Your task to perform on an android device: Open location settings Image 0: 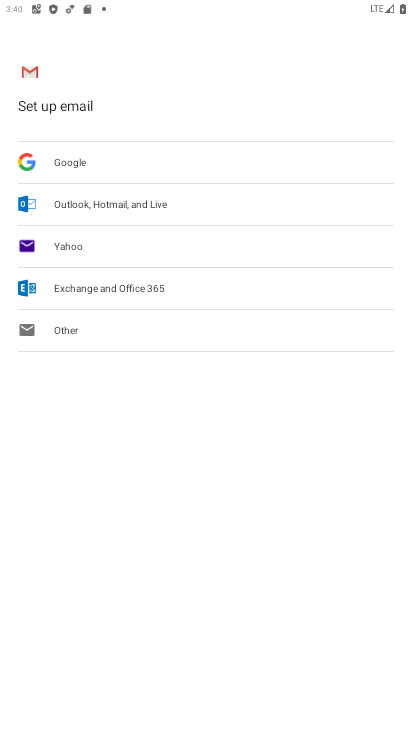
Step 0: press home button
Your task to perform on an android device: Open location settings Image 1: 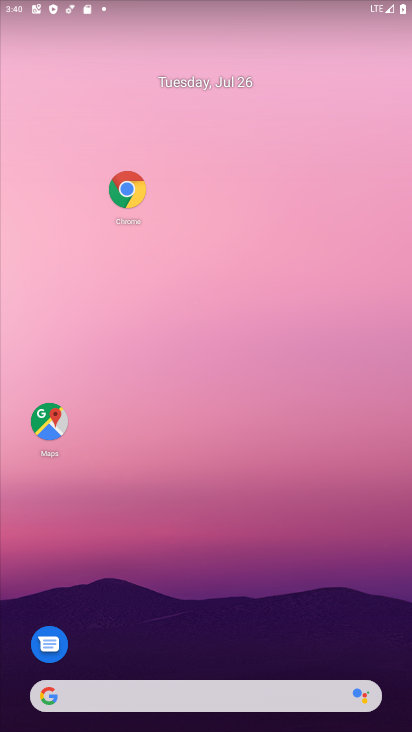
Step 1: drag from (211, 683) to (187, 251)
Your task to perform on an android device: Open location settings Image 2: 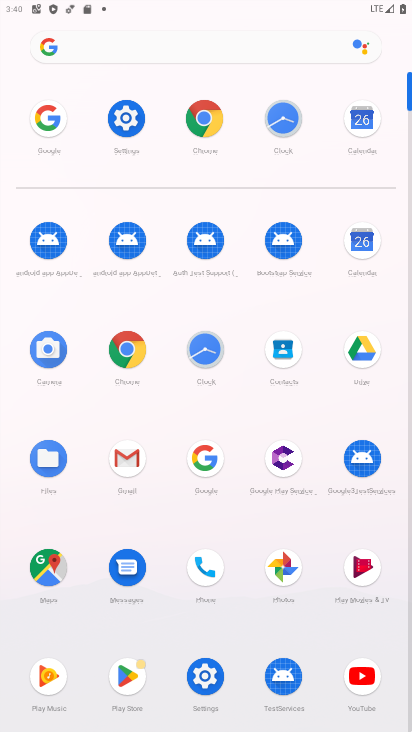
Step 2: click (199, 682)
Your task to perform on an android device: Open location settings Image 3: 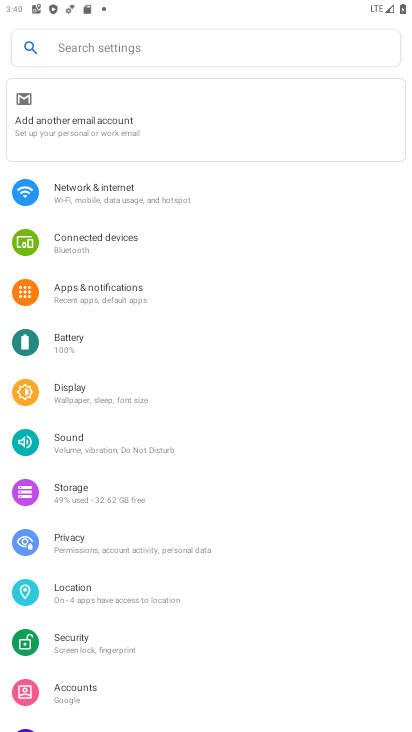
Step 3: click (79, 587)
Your task to perform on an android device: Open location settings Image 4: 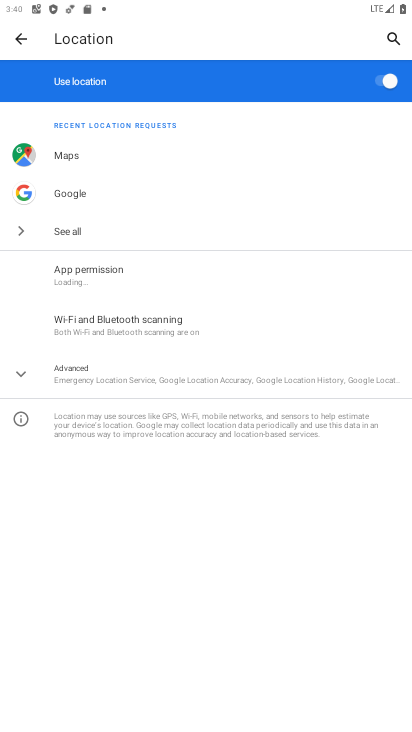
Step 4: click (107, 363)
Your task to perform on an android device: Open location settings Image 5: 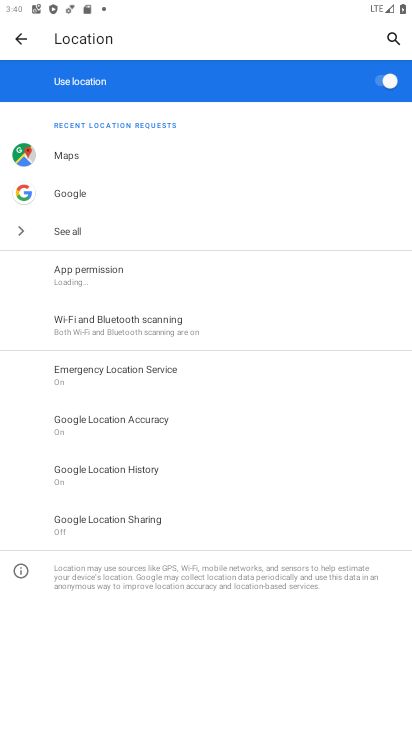
Step 5: task complete